Your task to perform on an android device: open app "Google Maps" Image 0: 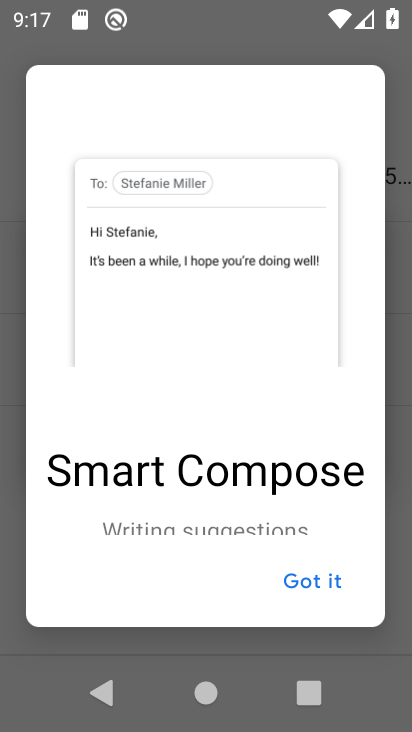
Step 0: press home button
Your task to perform on an android device: open app "Google Maps" Image 1: 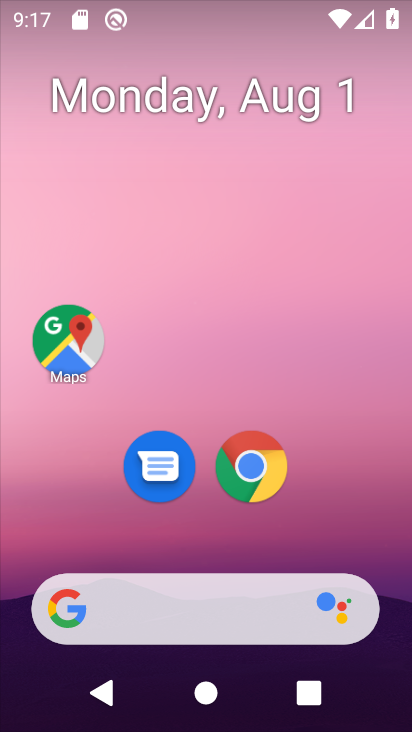
Step 1: drag from (238, 718) to (232, 91)
Your task to perform on an android device: open app "Google Maps" Image 2: 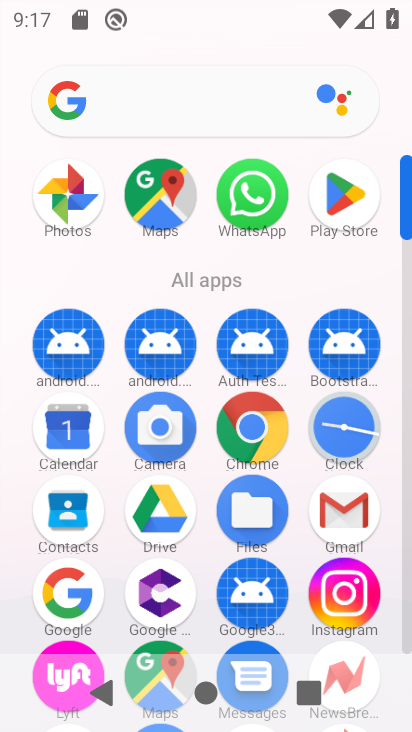
Step 2: click (162, 188)
Your task to perform on an android device: open app "Google Maps" Image 3: 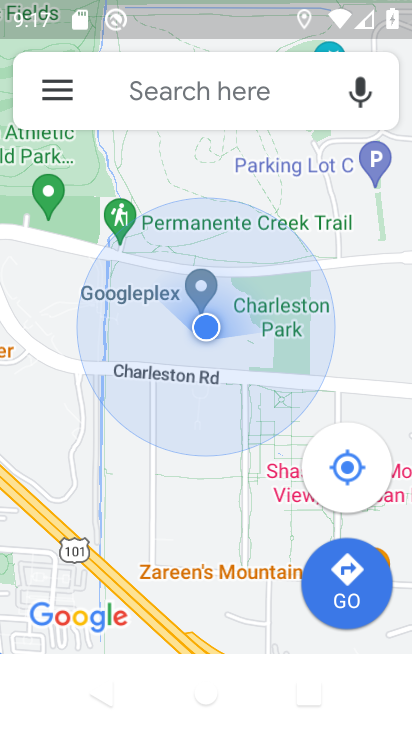
Step 3: task complete